Your task to perform on an android device: Clear the cart on ebay.com. Add lenovo thinkpad to the cart on ebay.com, then select checkout. Image 0: 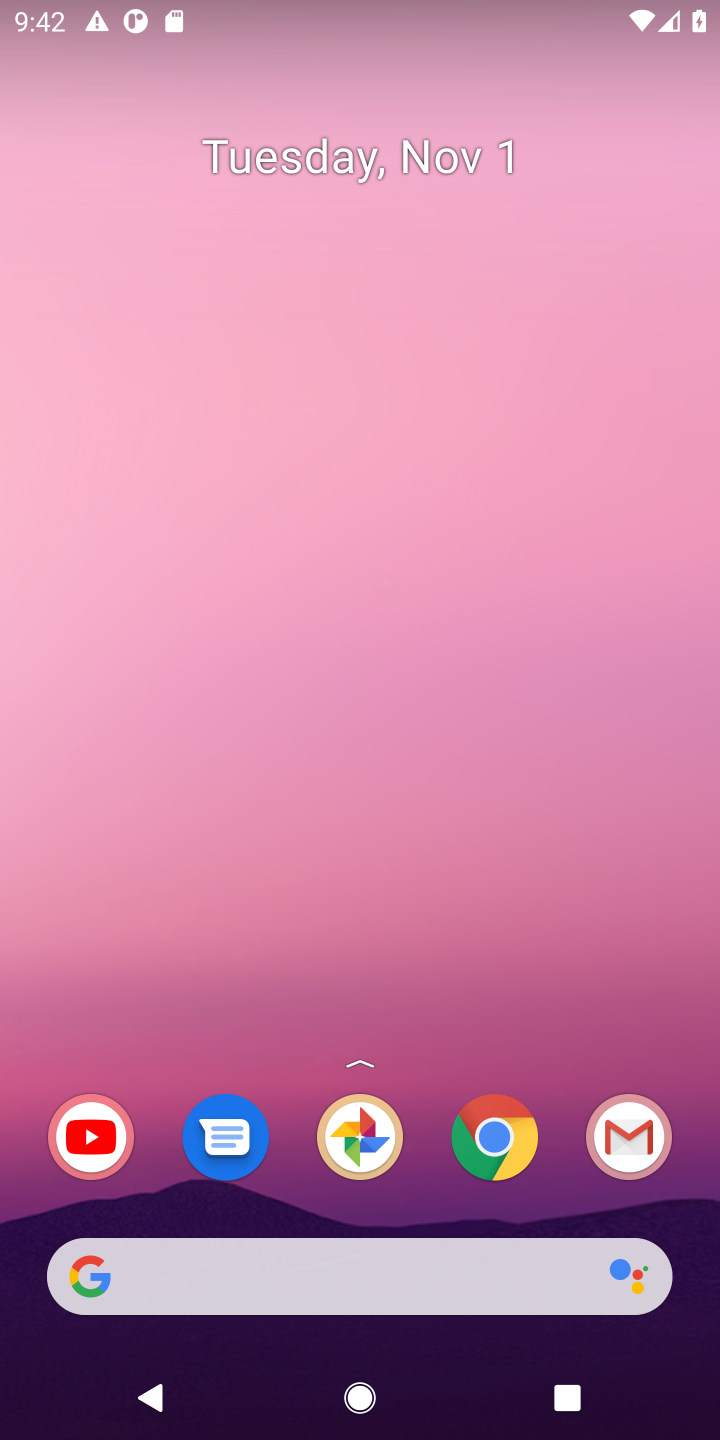
Step 0: click (356, 1261)
Your task to perform on an android device: Clear the cart on ebay.com. Add lenovo thinkpad to the cart on ebay.com, then select checkout. Image 1: 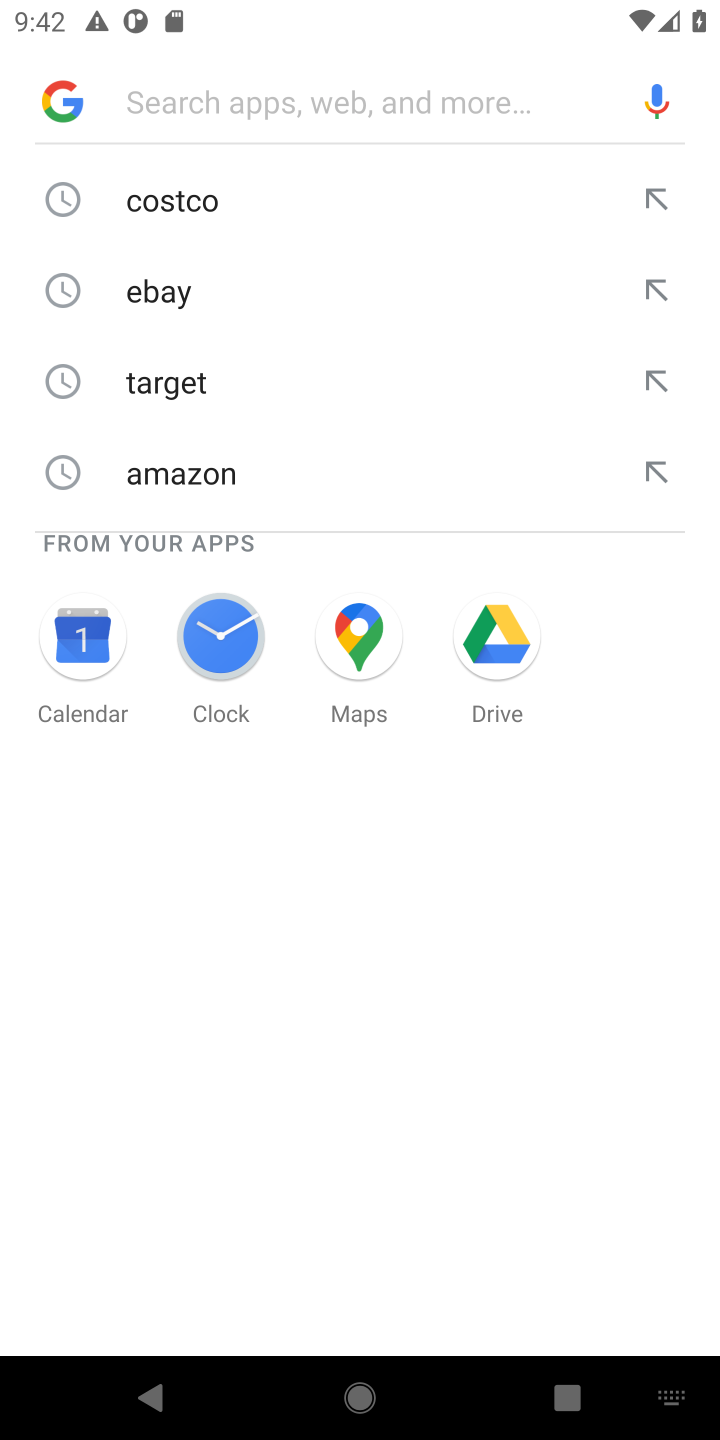
Step 1: click (138, 297)
Your task to perform on an android device: Clear the cart on ebay.com. Add lenovo thinkpad to the cart on ebay.com, then select checkout. Image 2: 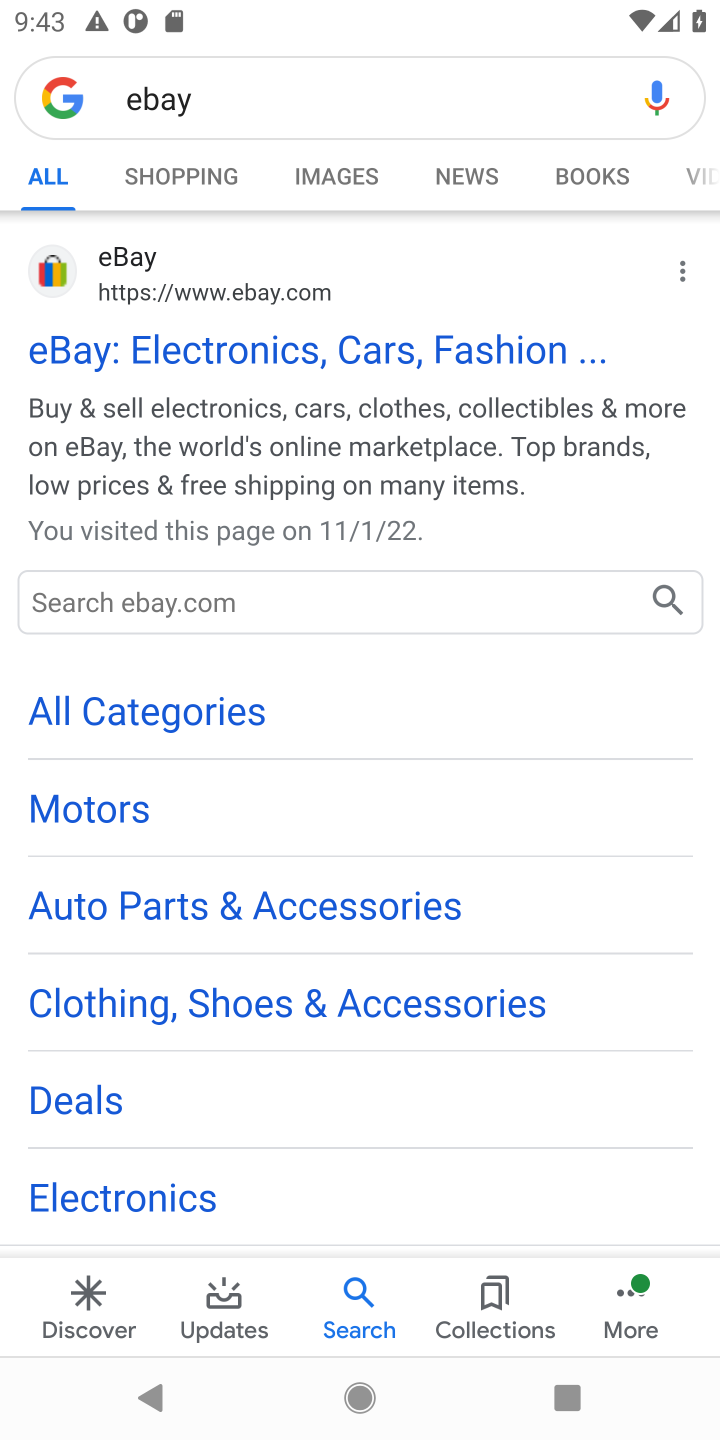
Step 2: click (130, 261)
Your task to perform on an android device: Clear the cart on ebay.com. Add lenovo thinkpad to the cart on ebay.com, then select checkout. Image 3: 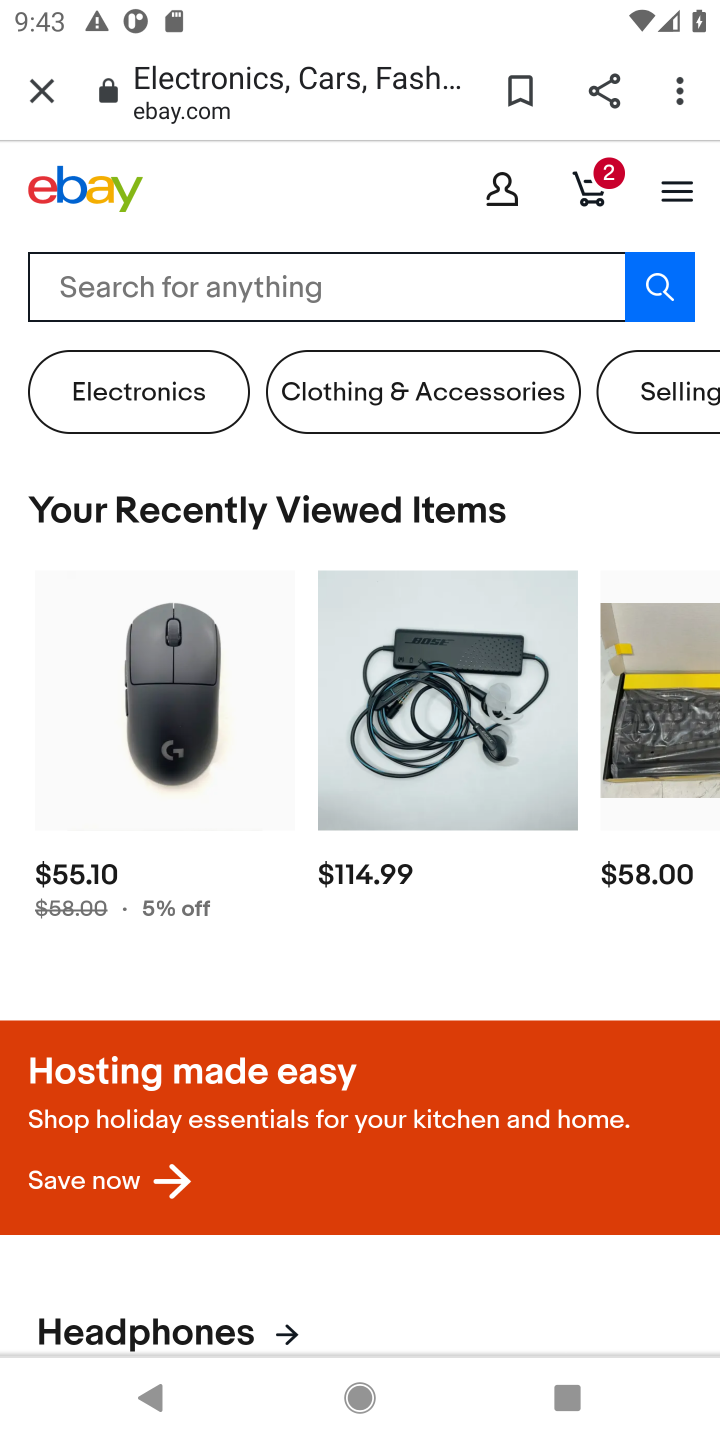
Step 3: click (138, 281)
Your task to perform on an android device: Clear the cart on ebay.com. Add lenovo thinkpad to the cart on ebay.com, then select checkout. Image 4: 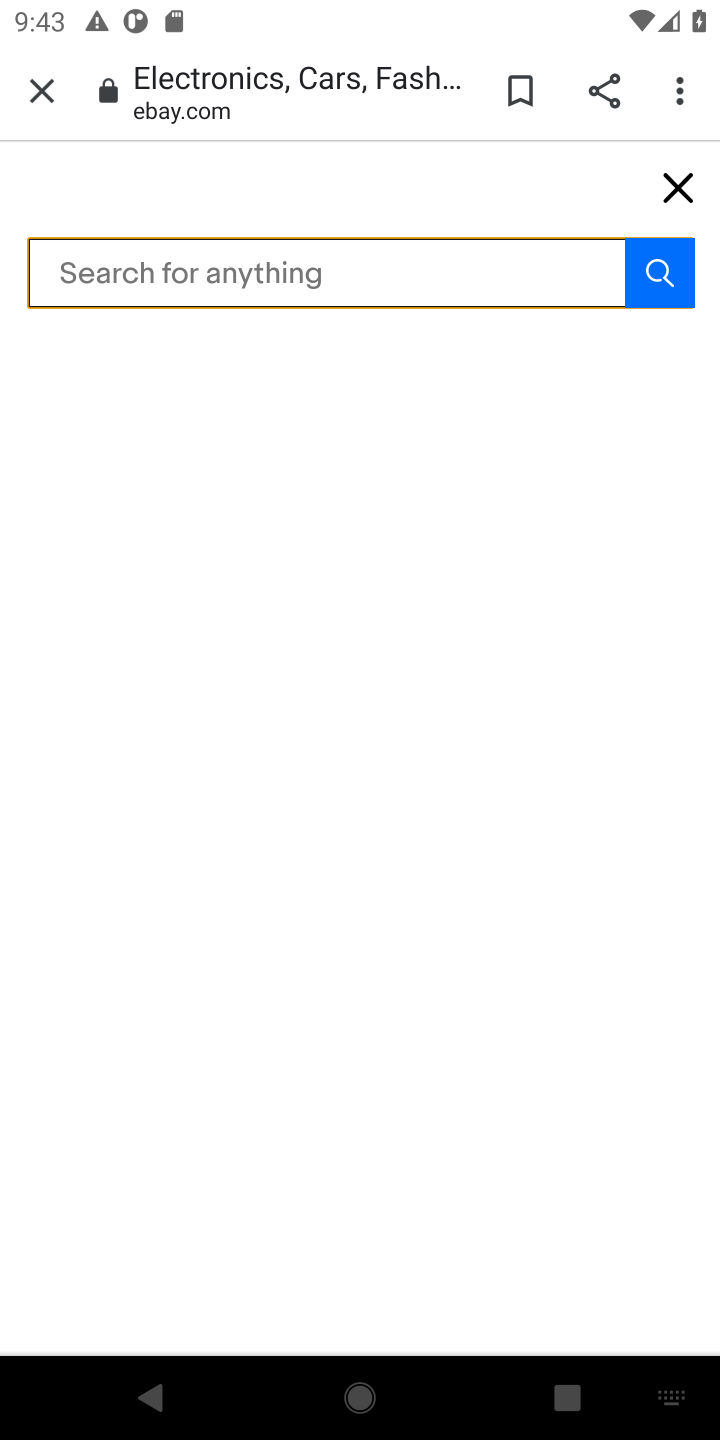
Step 4: click (31, 91)
Your task to perform on an android device: Clear the cart on ebay.com. Add lenovo thinkpad to the cart on ebay.com, then select checkout. Image 5: 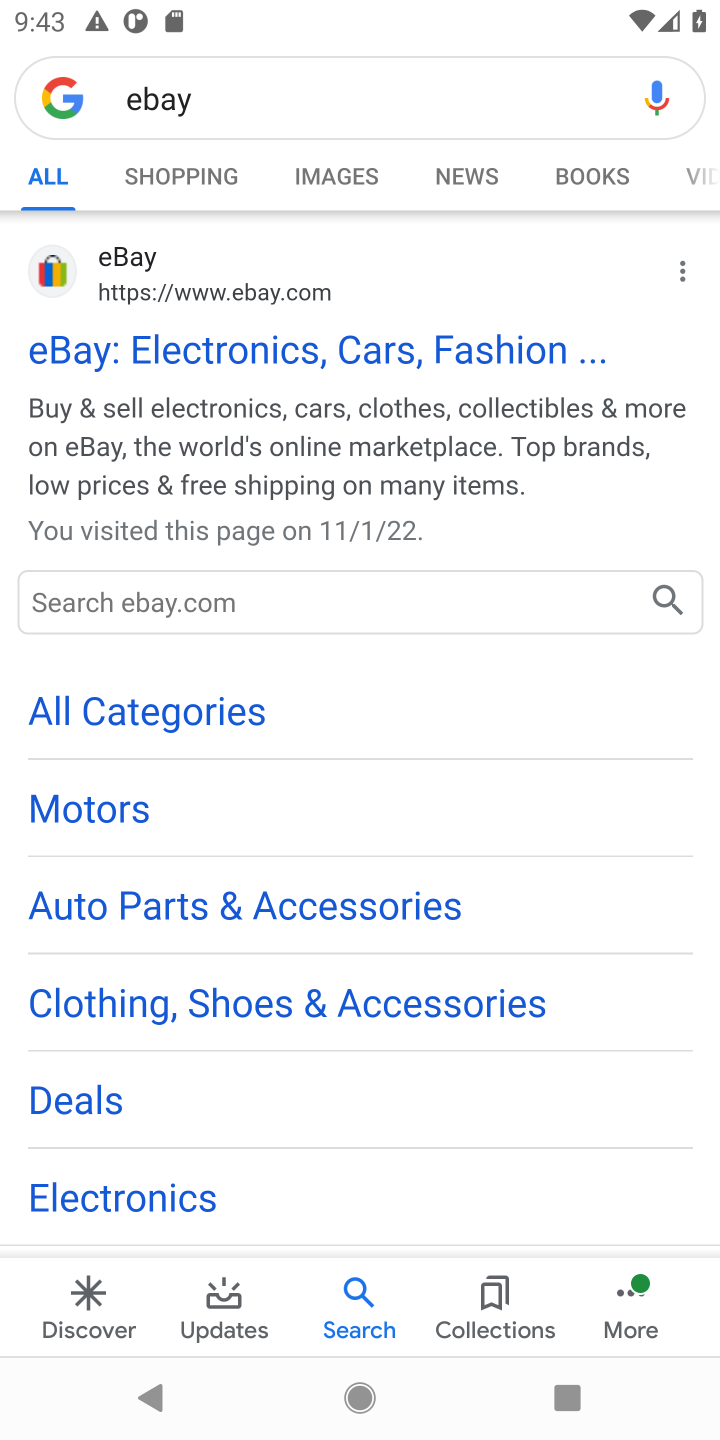
Step 5: click (205, 280)
Your task to perform on an android device: Clear the cart on ebay.com. Add lenovo thinkpad to the cart on ebay.com, then select checkout. Image 6: 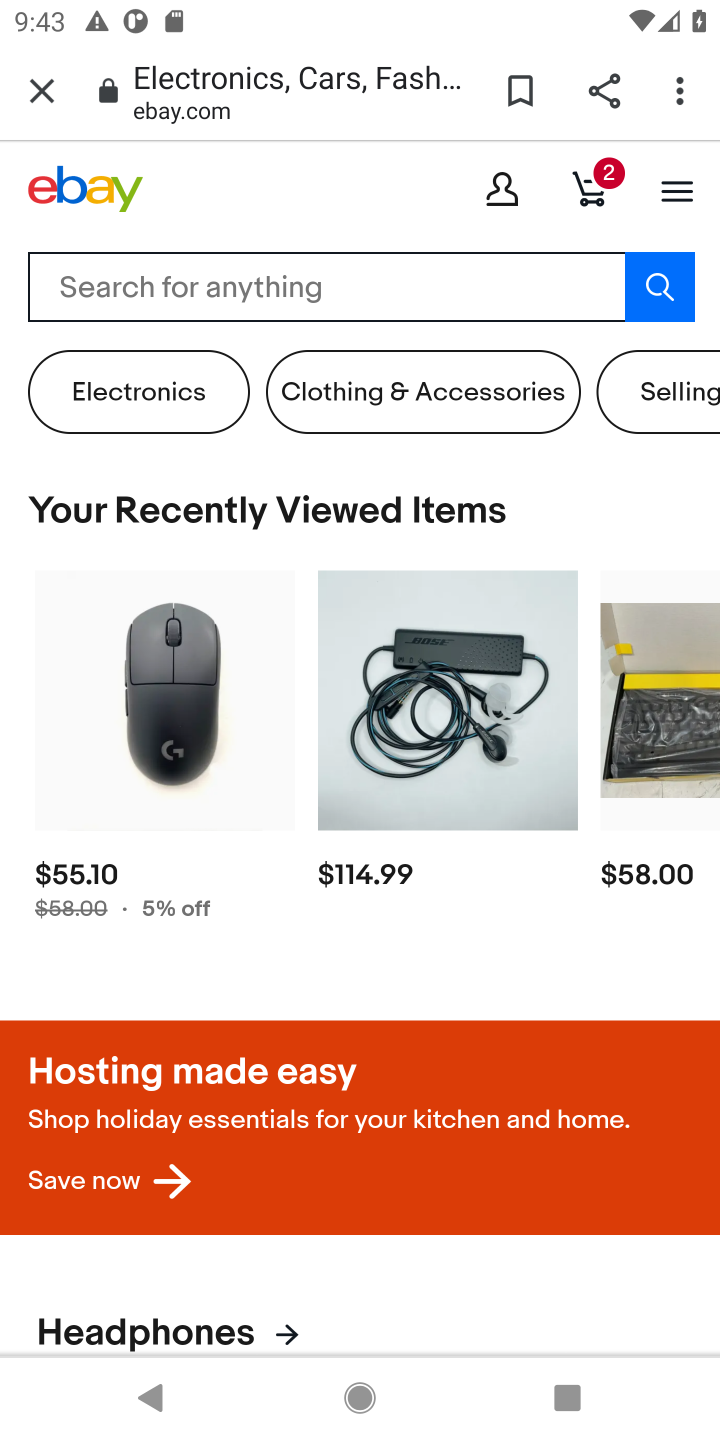
Step 6: click (599, 190)
Your task to perform on an android device: Clear the cart on ebay.com. Add lenovo thinkpad to the cart on ebay.com, then select checkout. Image 7: 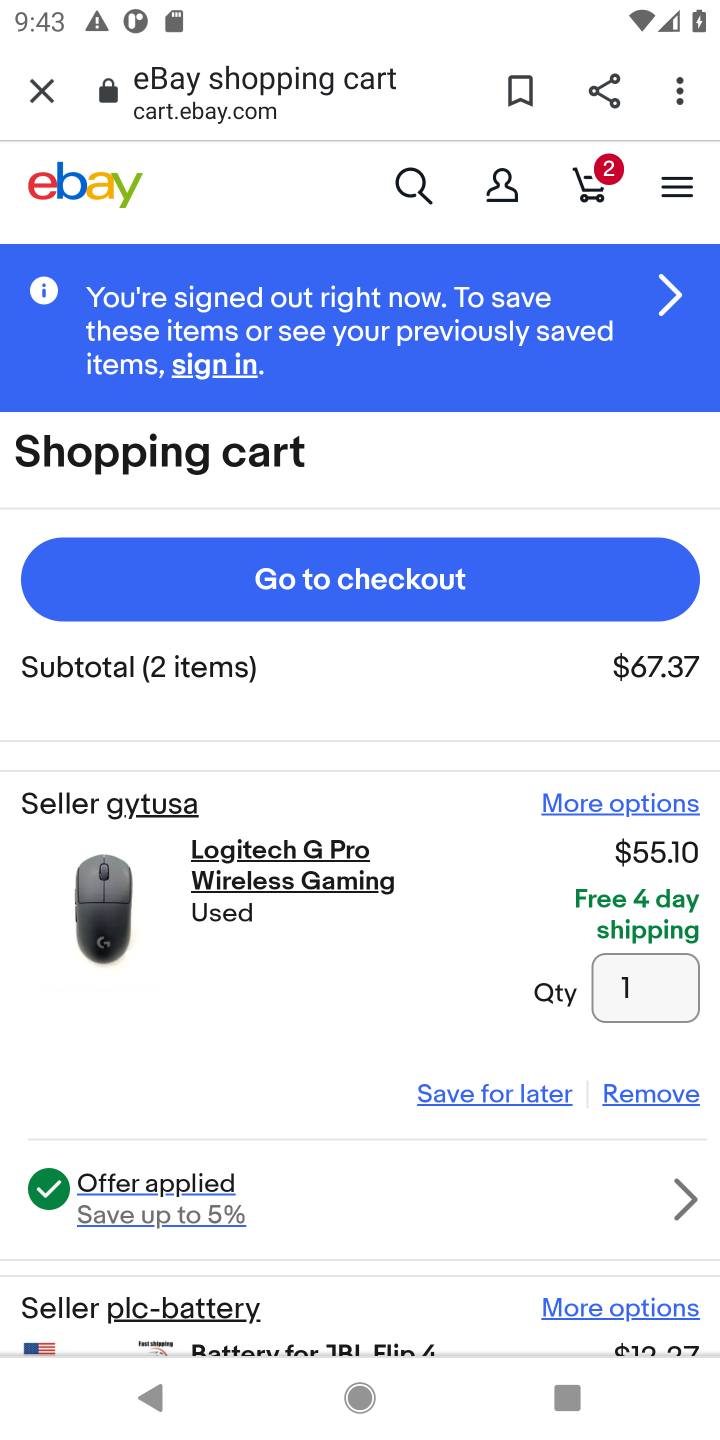
Step 7: click (651, 1089)
Your task to perform on an android device: Clear the cart on ebay.com. Add lenovo thinkpad to the cart on ebay.com, then select checkout. Image 8: 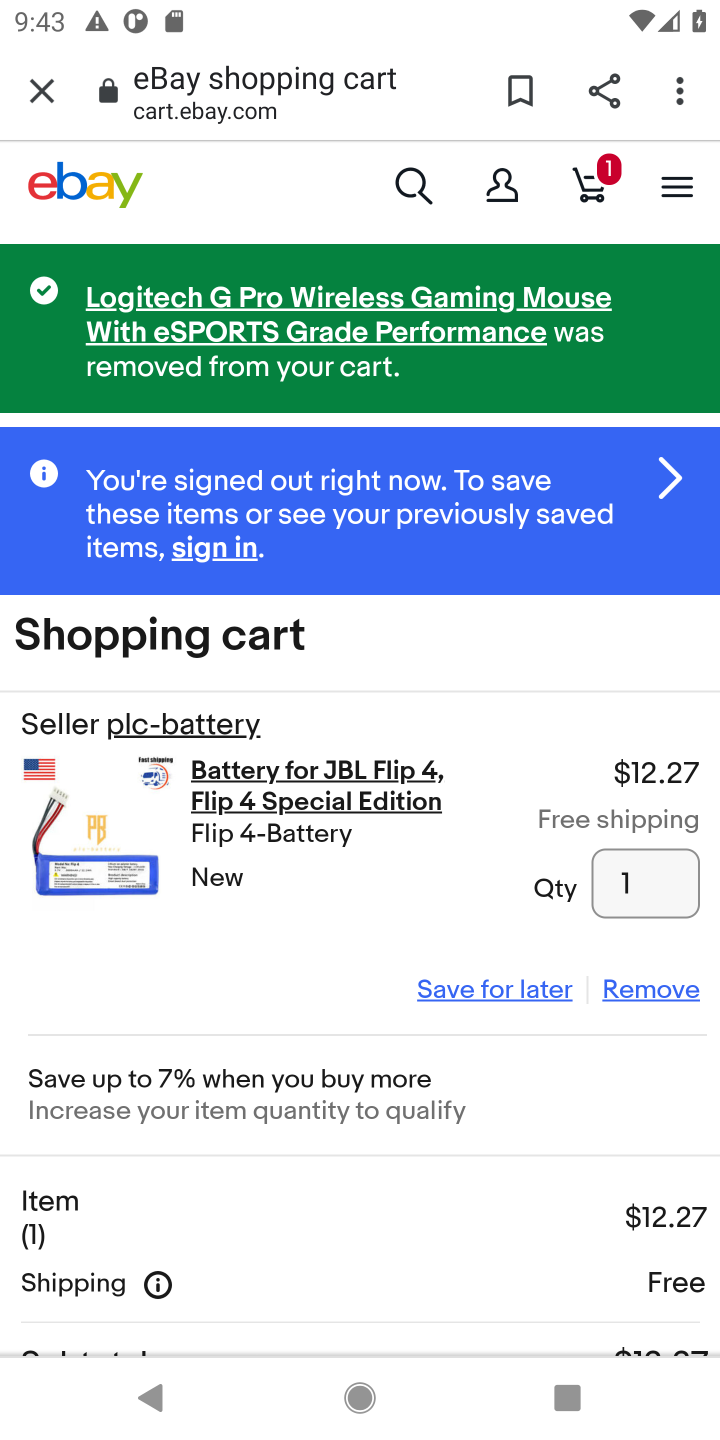
Step 8: click (651, 992)
Your task to perform on an android device: Clear the cart on ebay.com. Add lenovo thinkpad to the cart on ebay.com, then select checkout. Image 9: 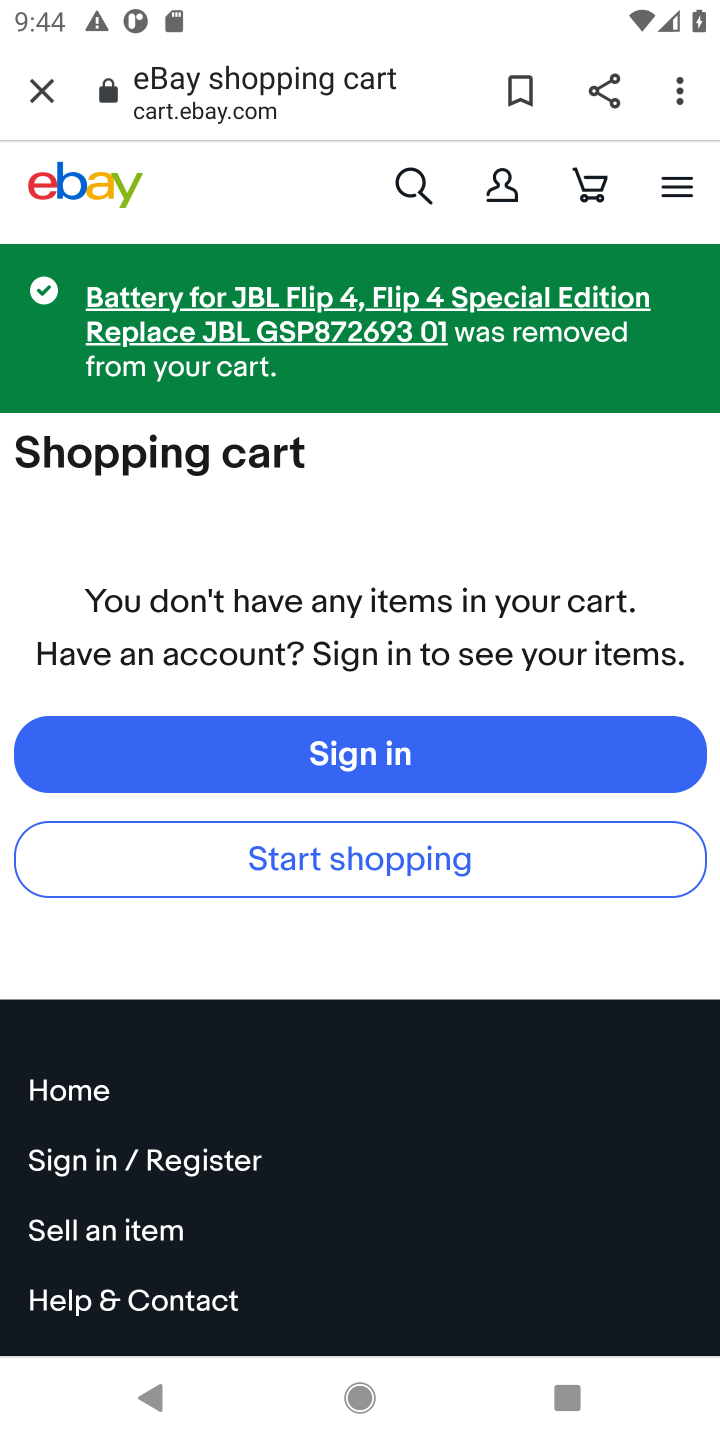
Step 9: click (396, 192)
Your task to perform on an android device: Clear the cart on ebay.com. Add lenovo thinkpad to the cart on ebay.com, then select checkout. Image 10: 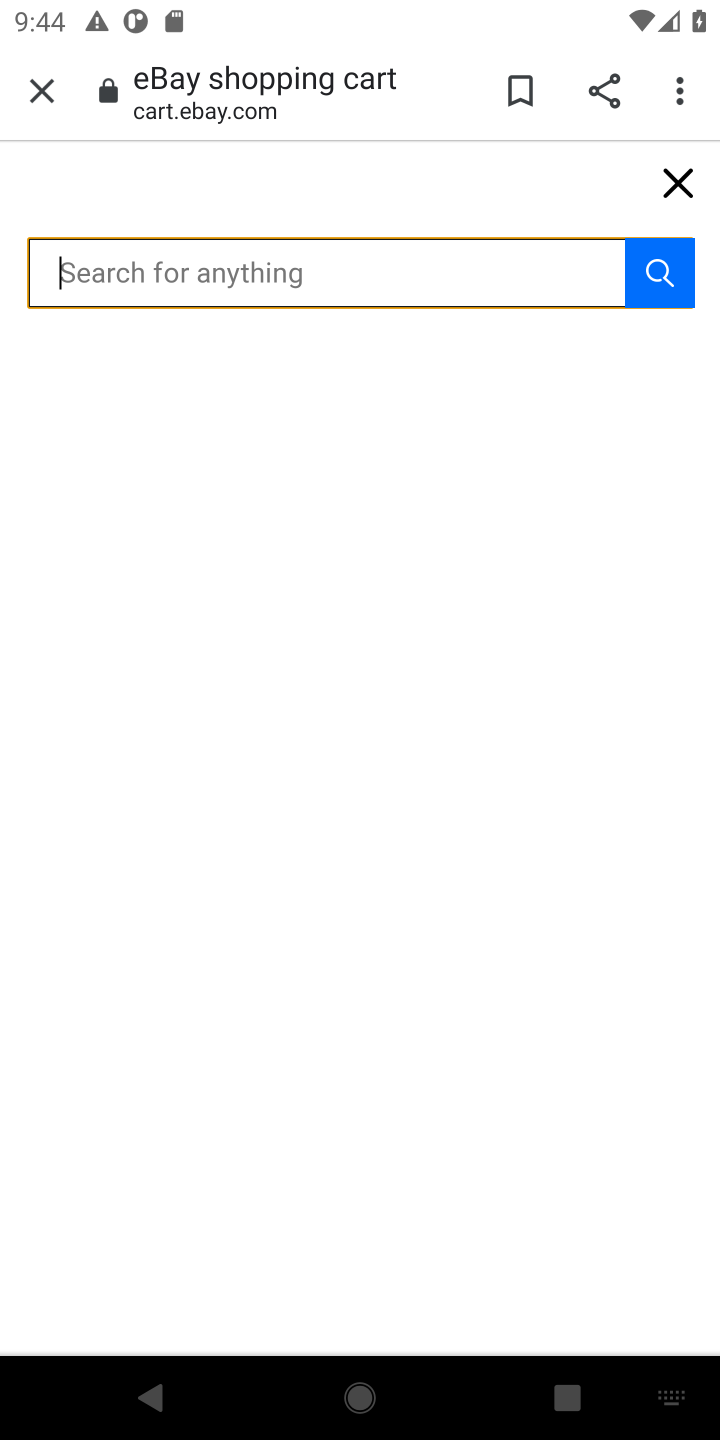
Step 10: type " lenovo thinkpad "
Your task to perform on an android device: Clear the cart on ebay.com. Add lenovo thinkpad to the cart on ebay.com, then select checkout. Image 11: 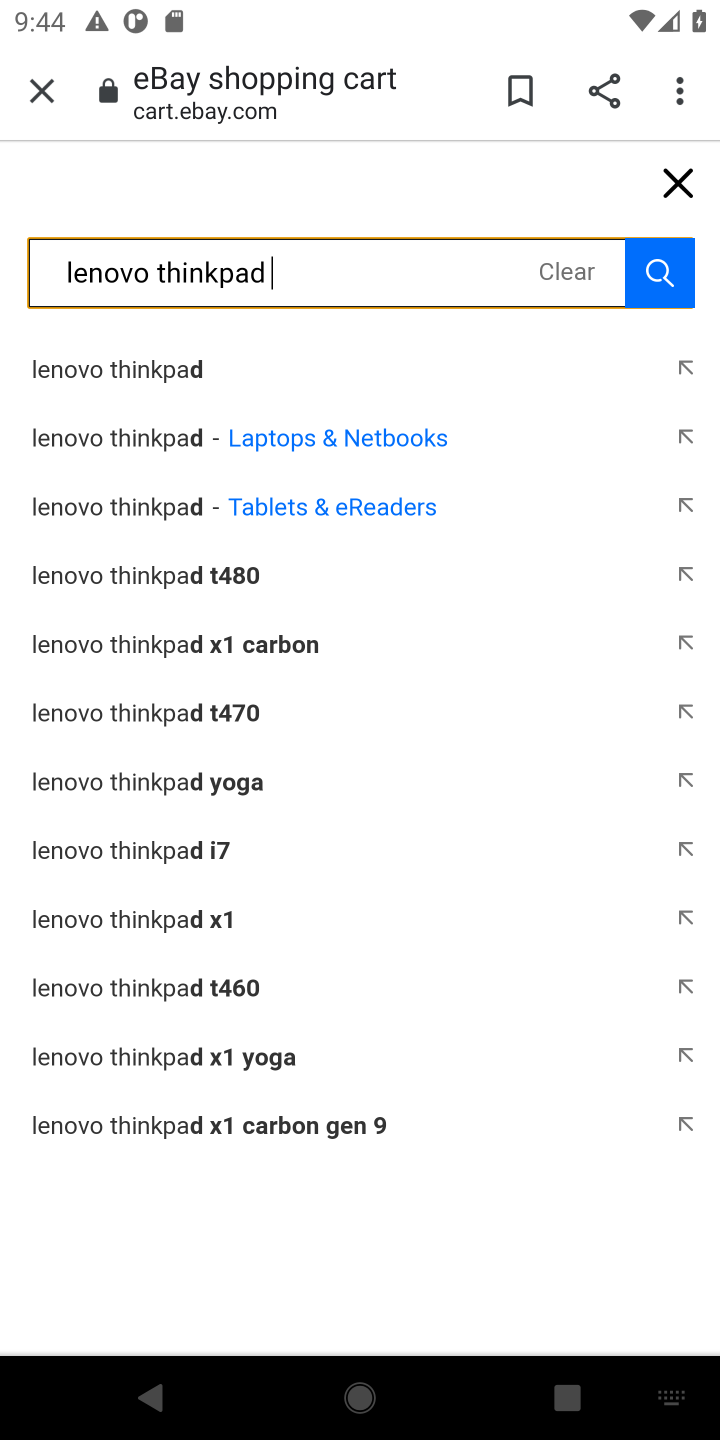
Step 11: click (136, 364)
Your task to perform on an android device: Clear the cart on ebay.com. Add lenovo thinkpad to the cart on ebay.com, then select checkout. Image 12: 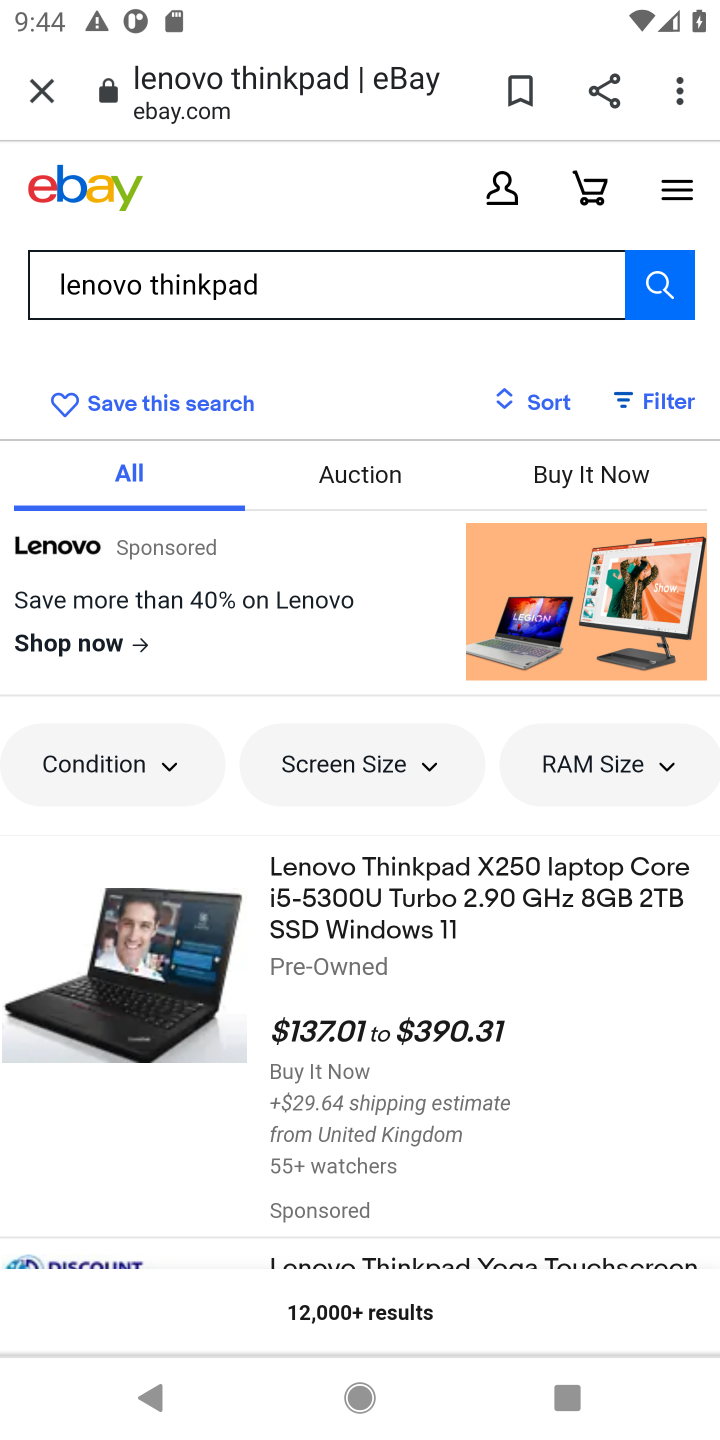
Step 12: click (353, 918)
Your task to perform on an android device: Clear the cart on ebay.com. Add lenovo thinkpad to the cart on ebay.com, then select checkout. Image 13: 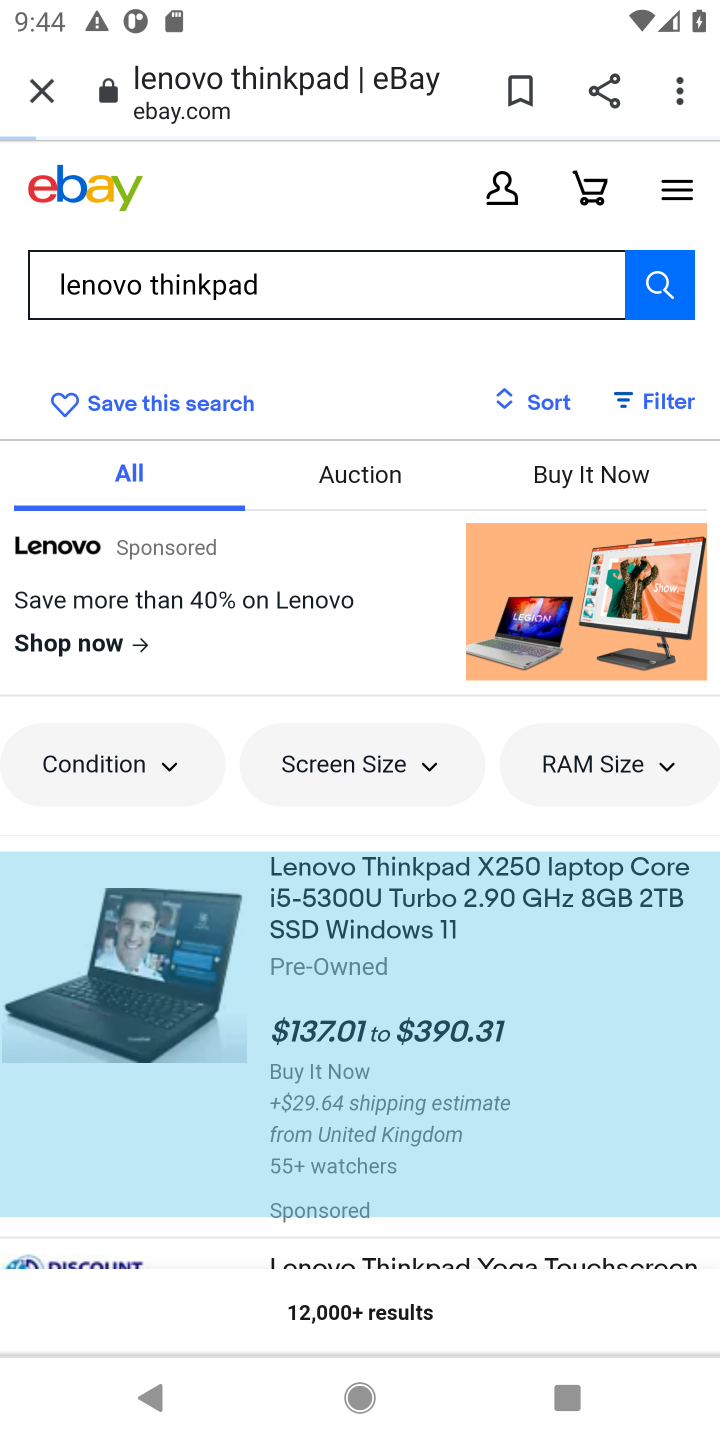
Step 13: click (353, 918)
Your task to perform on an android device: Clear the cart on ebay.com. Add lenovo thinkpad to the cart on ebay.com, then select checkout. Image 14: 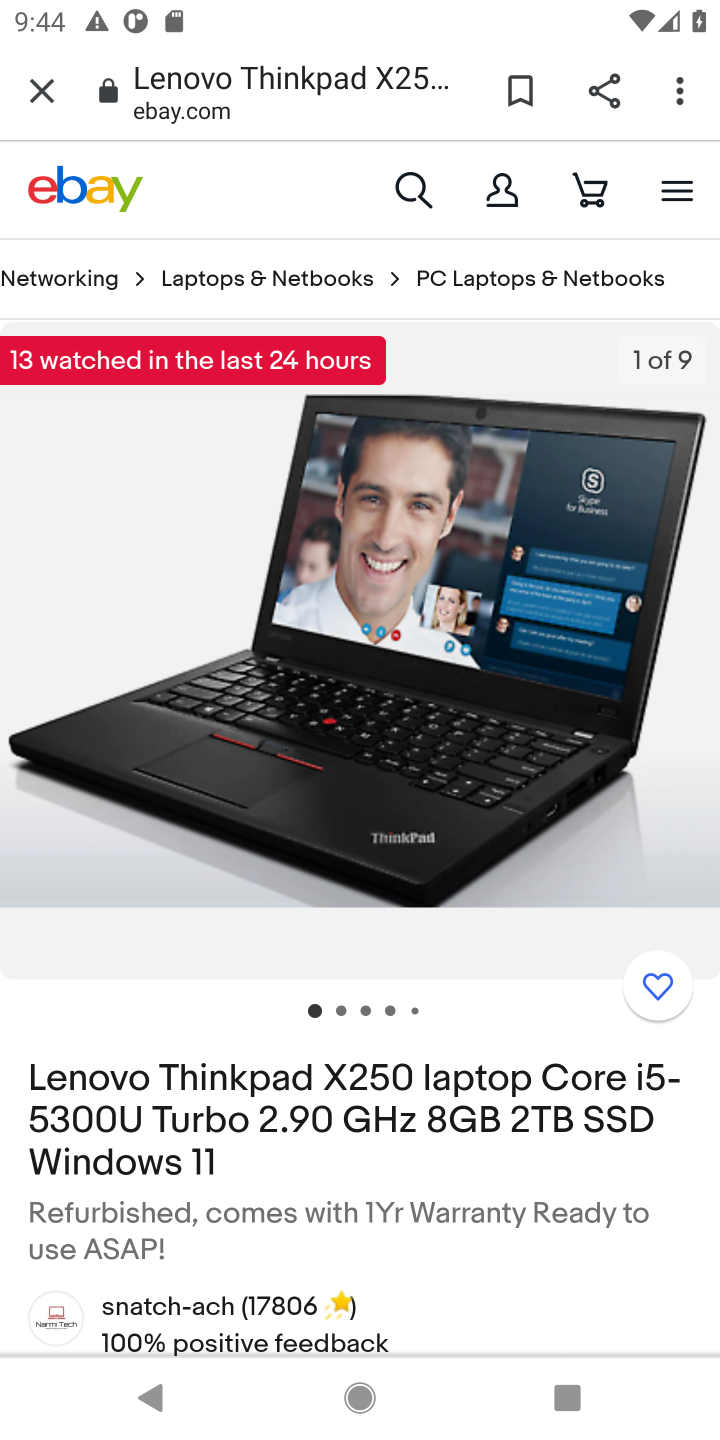
Step 14: drag from (425, 981) to (450, 62)
Your task to perform on an android device: Clear the cart on ebay.com. Add lenovo thinkpad to the cart on ebay.com, then select checkout. Image 15: 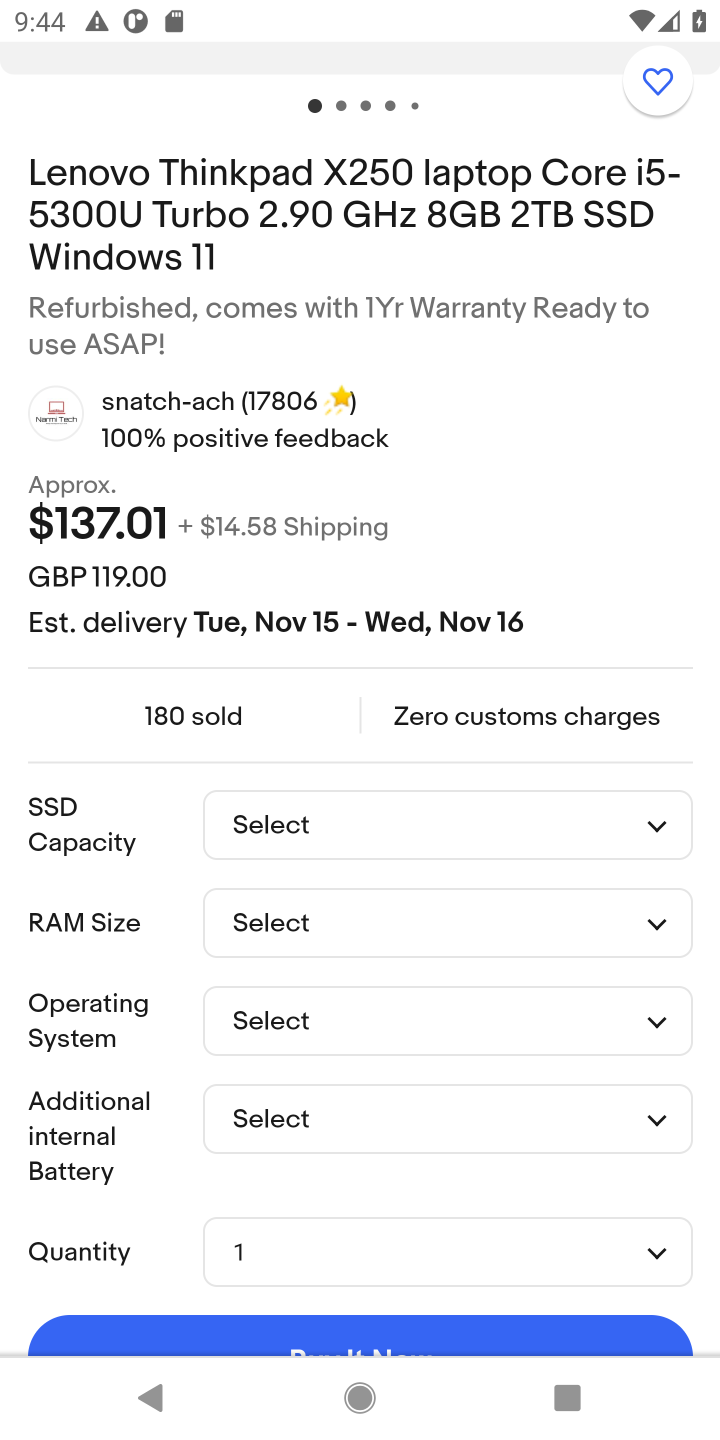
Step 15: drag from (325, 807) to (370, 518)
Your task to perform on an android device: Clear the cart on ebay.com. Add lenovo thinkpad to the cart on ebay.com, then select checkout. Image 16: 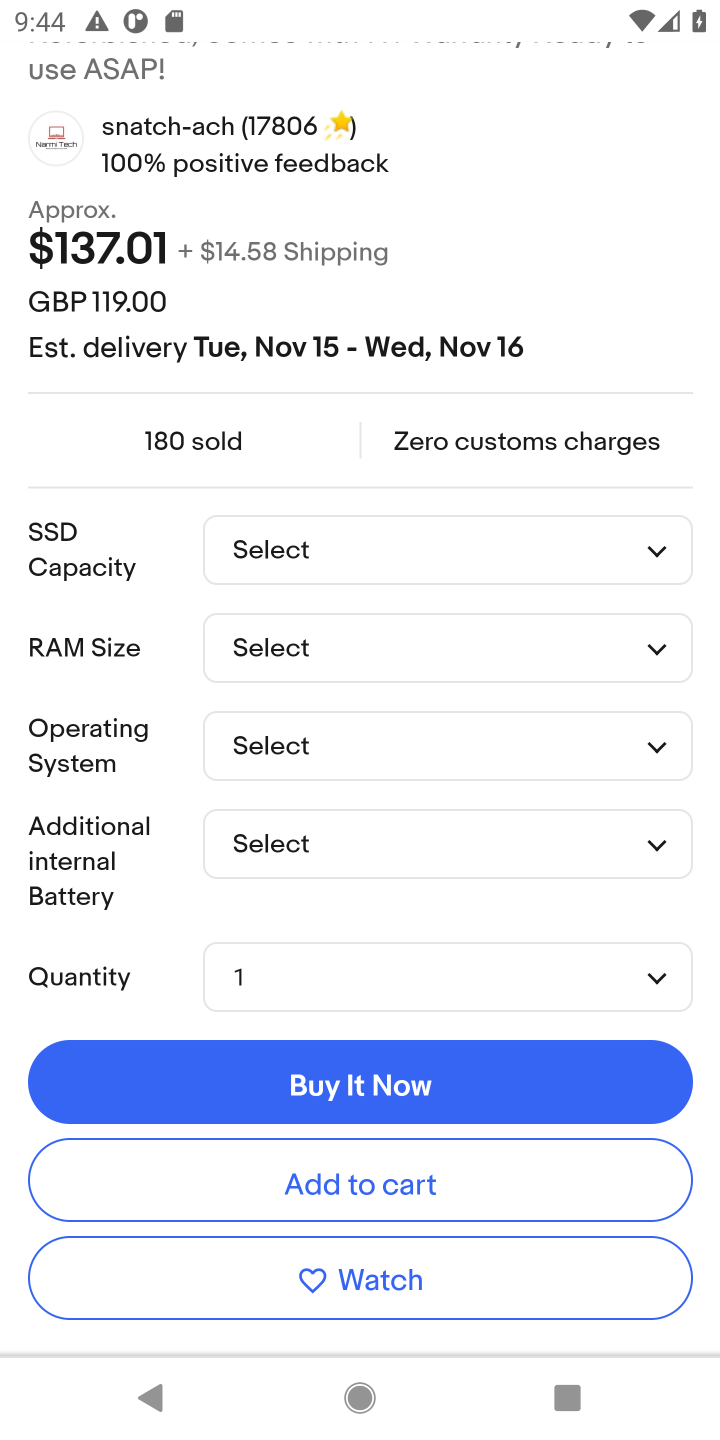
Step 16: click (401, 1173)
Your task to perform on an android device: Clear the cart on ebay.com. Add lenovo thinkpad to the cart on ebay.com, then select checkout. Image 17: 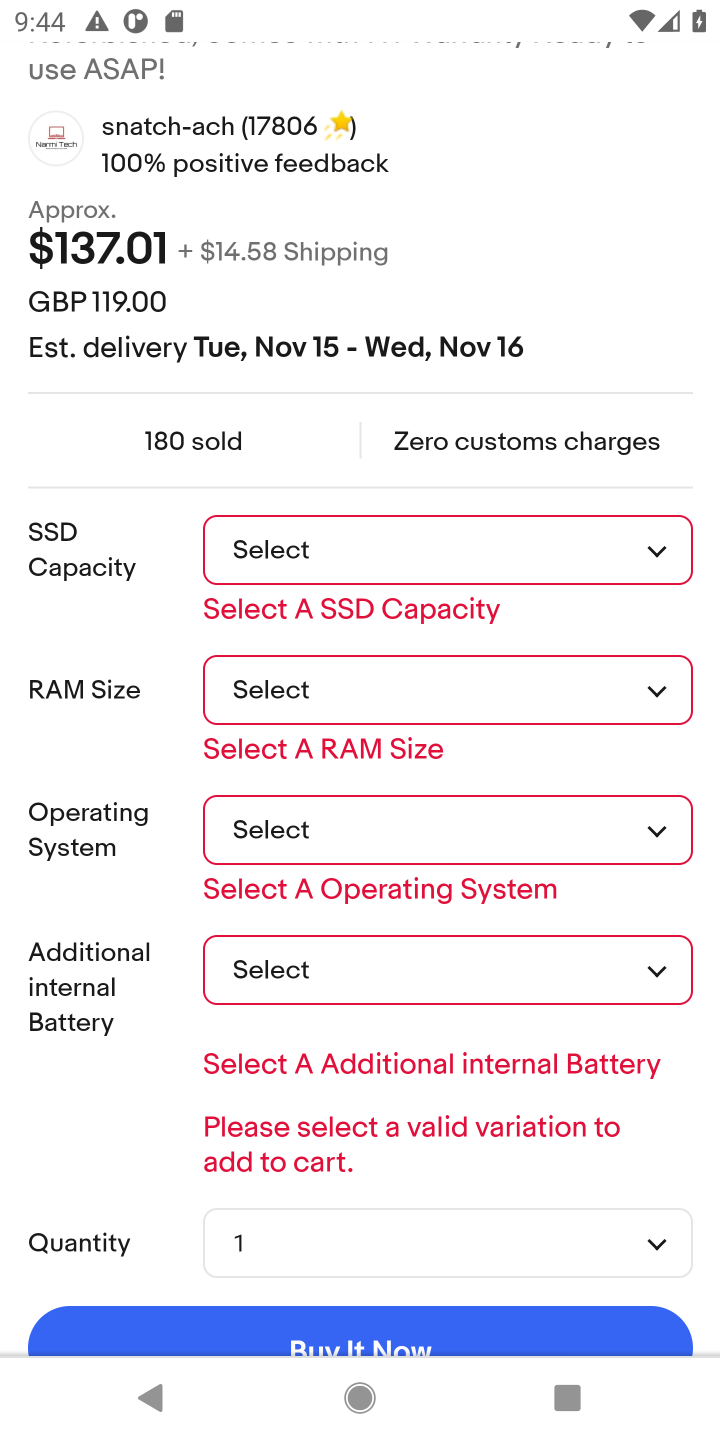
Step 17: click (650, 539)
Your task to perform on an android device: Clear the cart on ebay.com. Add lenovo thinkpad to the cart on ebay.com, then select checkout. Image 18: 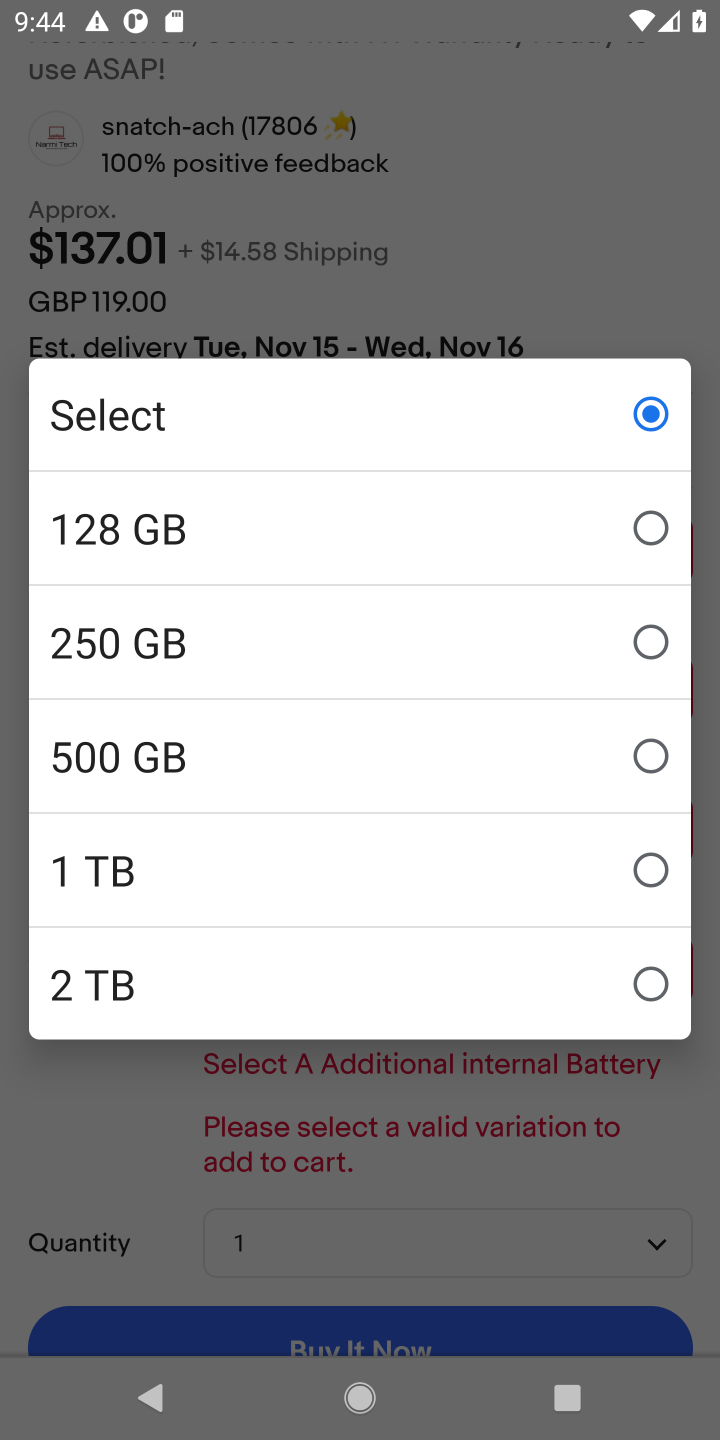
Step 18: click (331, 566)
Your task to perform on an android device: Clear the cart on ebay.com. Add lenovo thinkpad to the cart on ebay.com, then select checkout. Image 19: 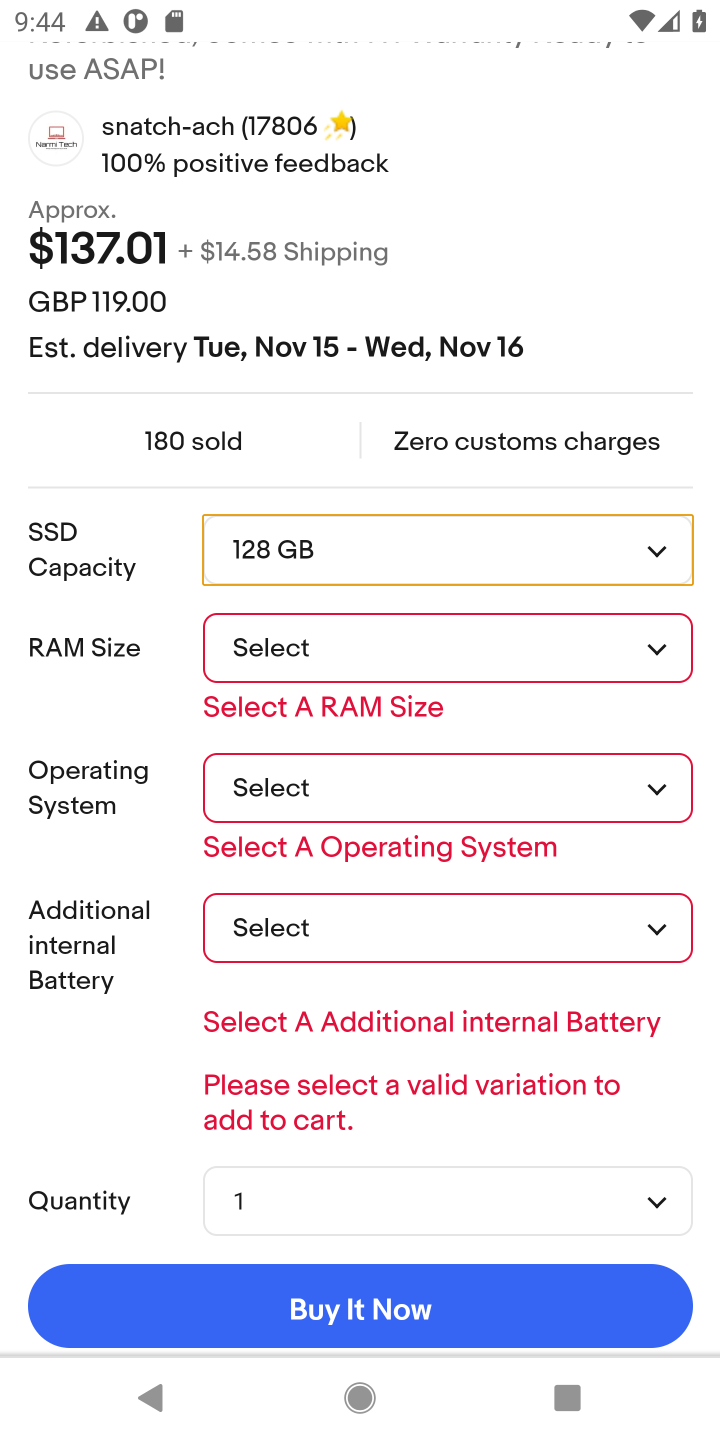
Step 19: click (566, 656)
Your task to perform on an android device: Clear the cart on ebay.com. Add lenovo thinkpad to the cart on ebay.com, then select checkout. Image 20: 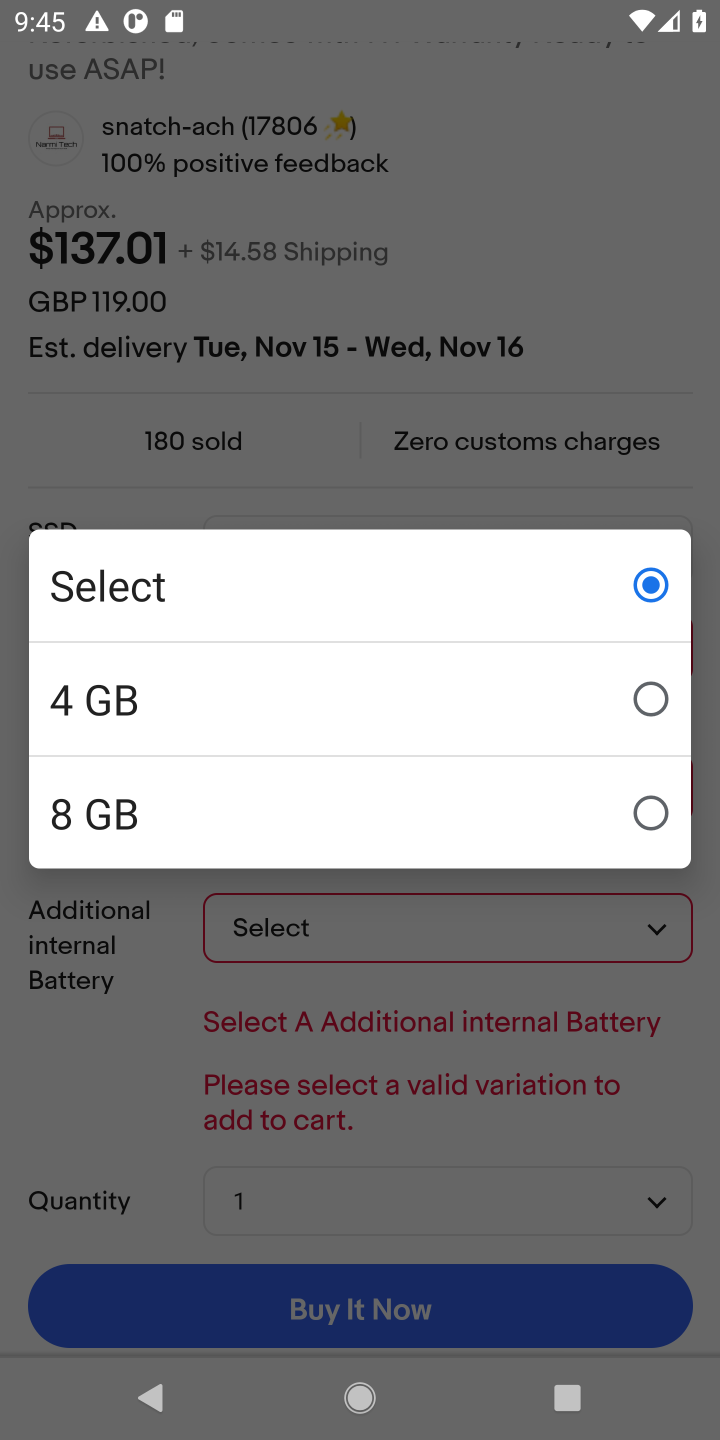
Step 20: click (652, 699)
Your task to perform on an android device: Clear the cart on ebay.com. Add lenovo thinkpad to the cart on ebay.com, then select checkout. Image 21: 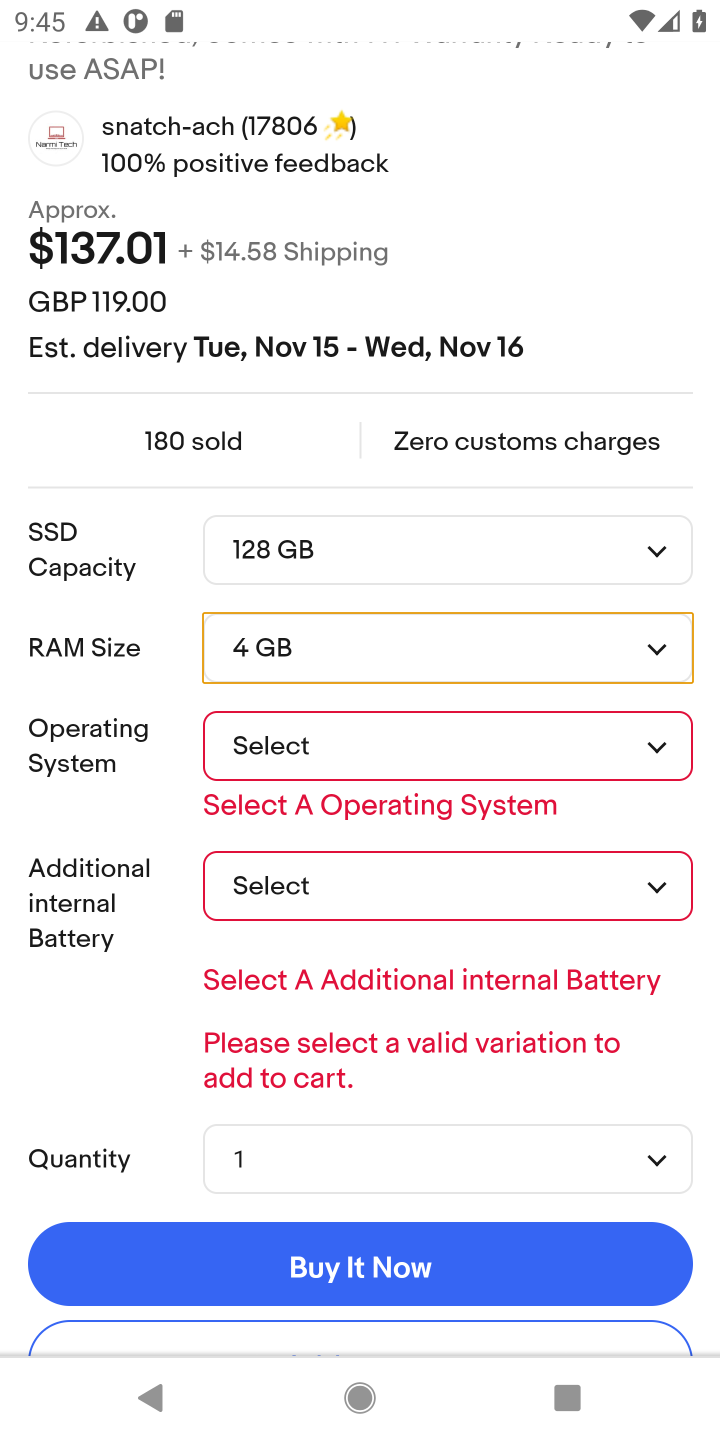
Step 21: click (617, 735)
Your task to perform on an android device: Clear the cart on ebay.com. Add lenovo thinkpad to the cart on ebay.com, then select checkout. Image 22: 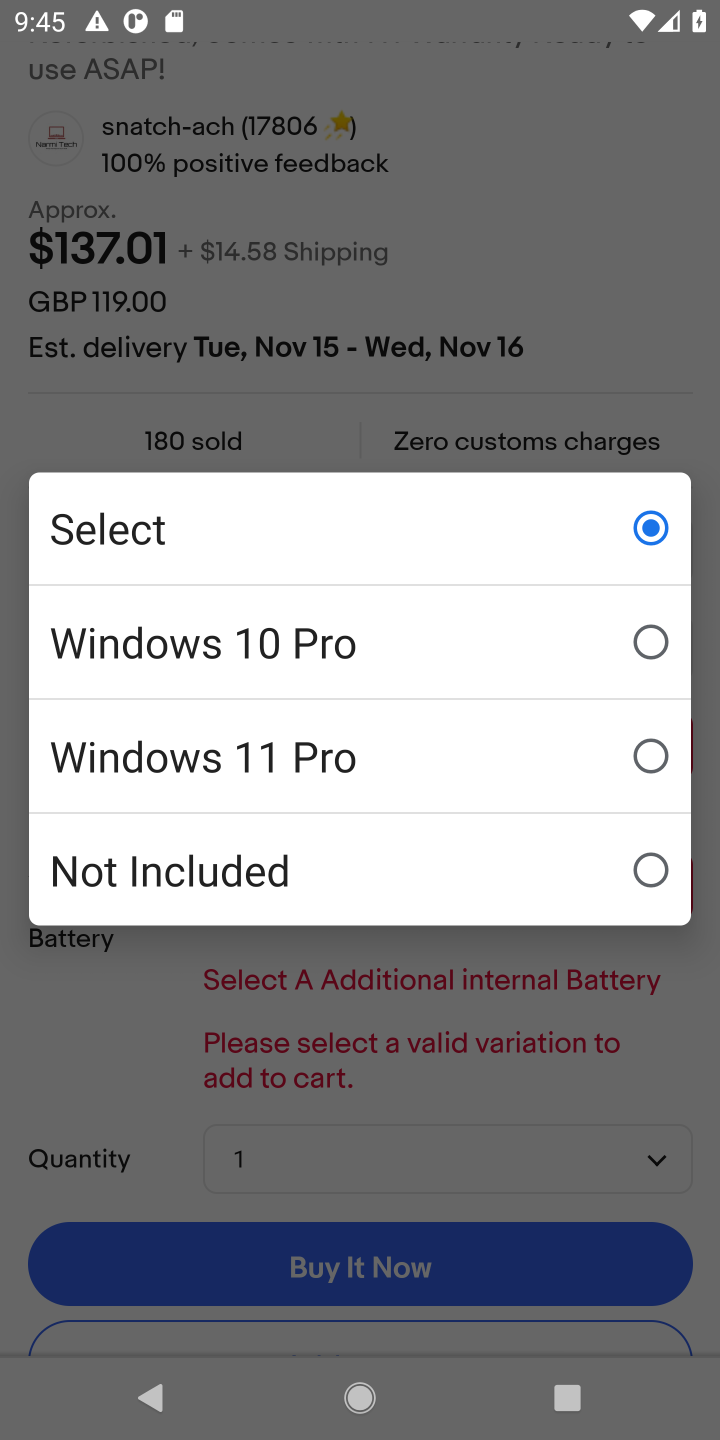
Step 22: click (645, 761)
Your task to perform on an android device: Clear the cart on ebay.com. Add lenovo thinkpad to the cart on ebay.com, then select checkout. Image 23: 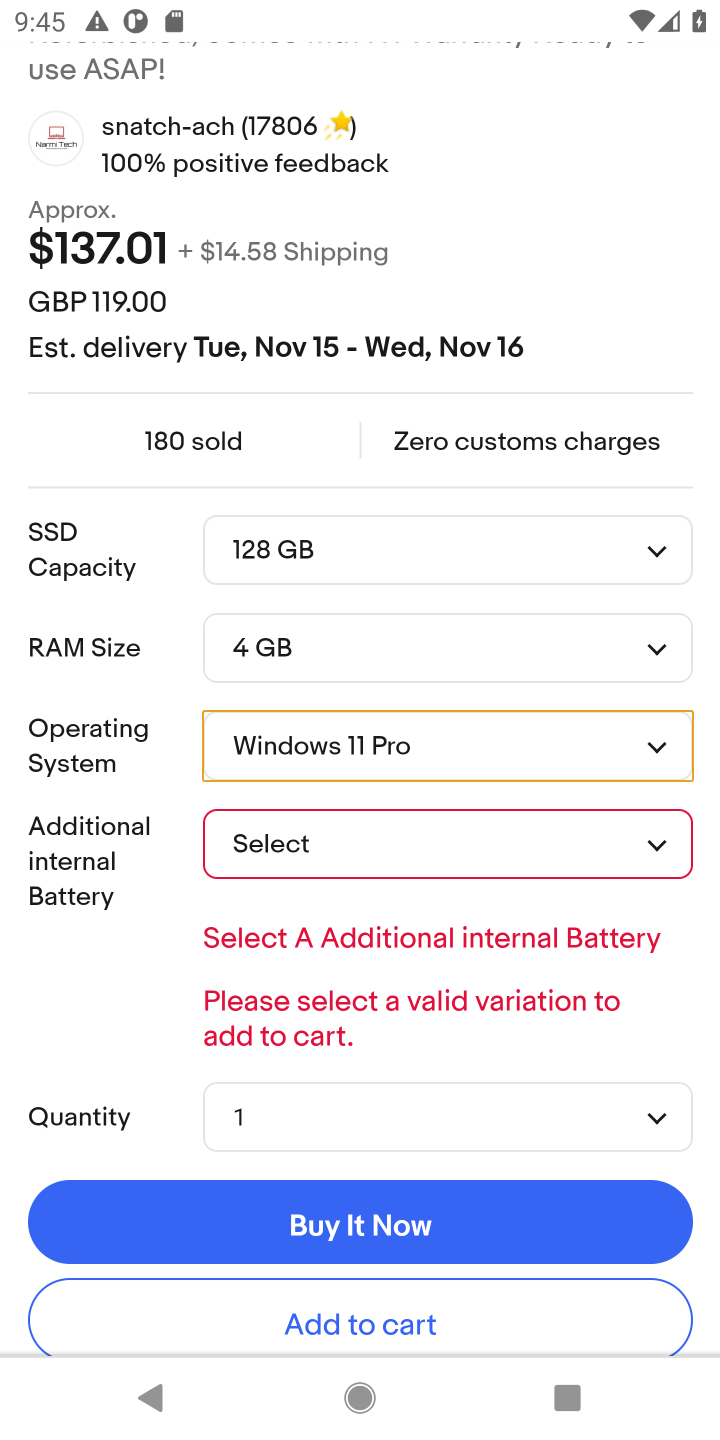
Step 23: click (669, 852)
Your task to perform on an android device: Clear the cart on ebay.com. Add lenovo thinkpad to the cart on ebay.com, then select checkout. Image 24: 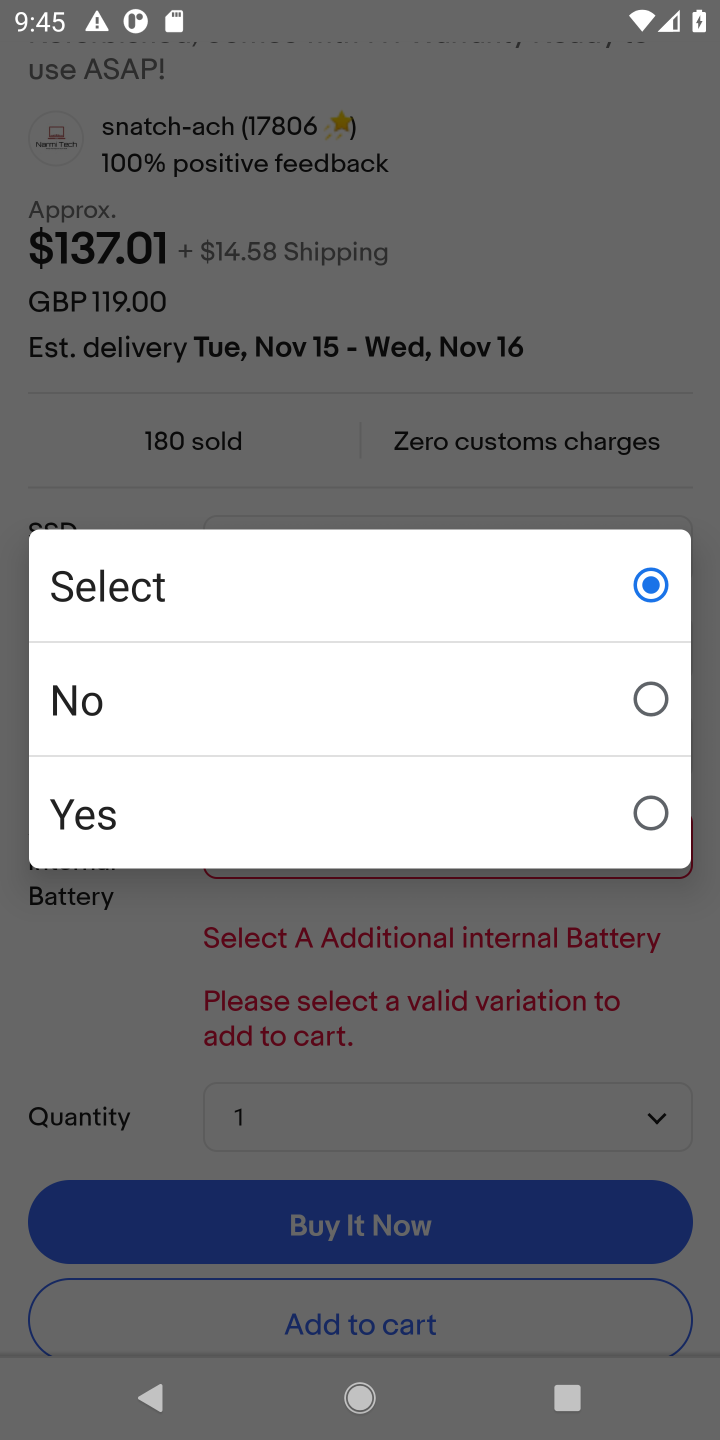
Step 24: click (378, 841)
Your task to perform on an android device: Clear the cart on ebay.com. Add lenovo thinkpad to the cart on ebay.com, then select checkout. Image 25: 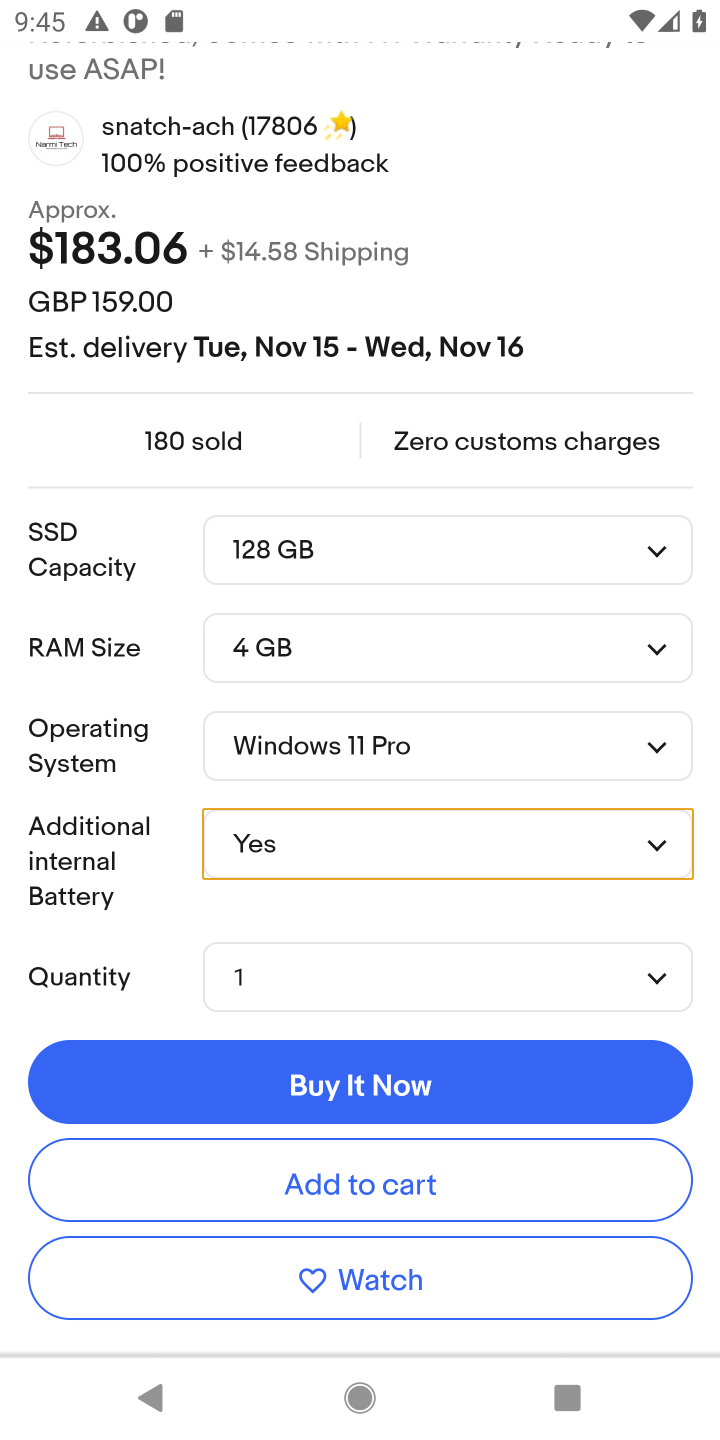
Step 25: click (306, 1209)
Your task to perform on an android device: Clear the cart on ebay.com. Add lenovo thinkpad to the cart on ebay.com, then select checkout. Image 26: 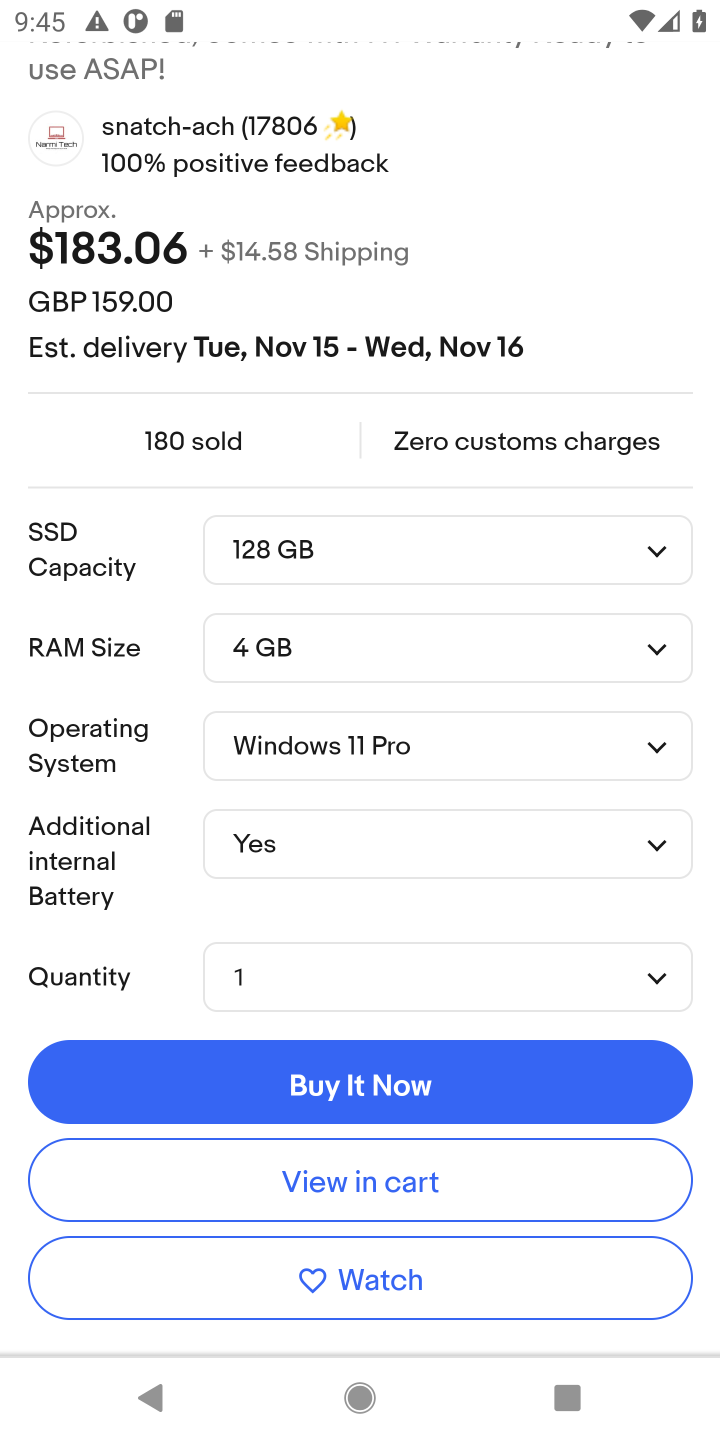
Step 26: click (392, 1172)
Your task to perform on an android device: Clear the cart on ebay.com. Add lenovo thinkpad to the cart on ebay.com, then select checkout. Image 27: 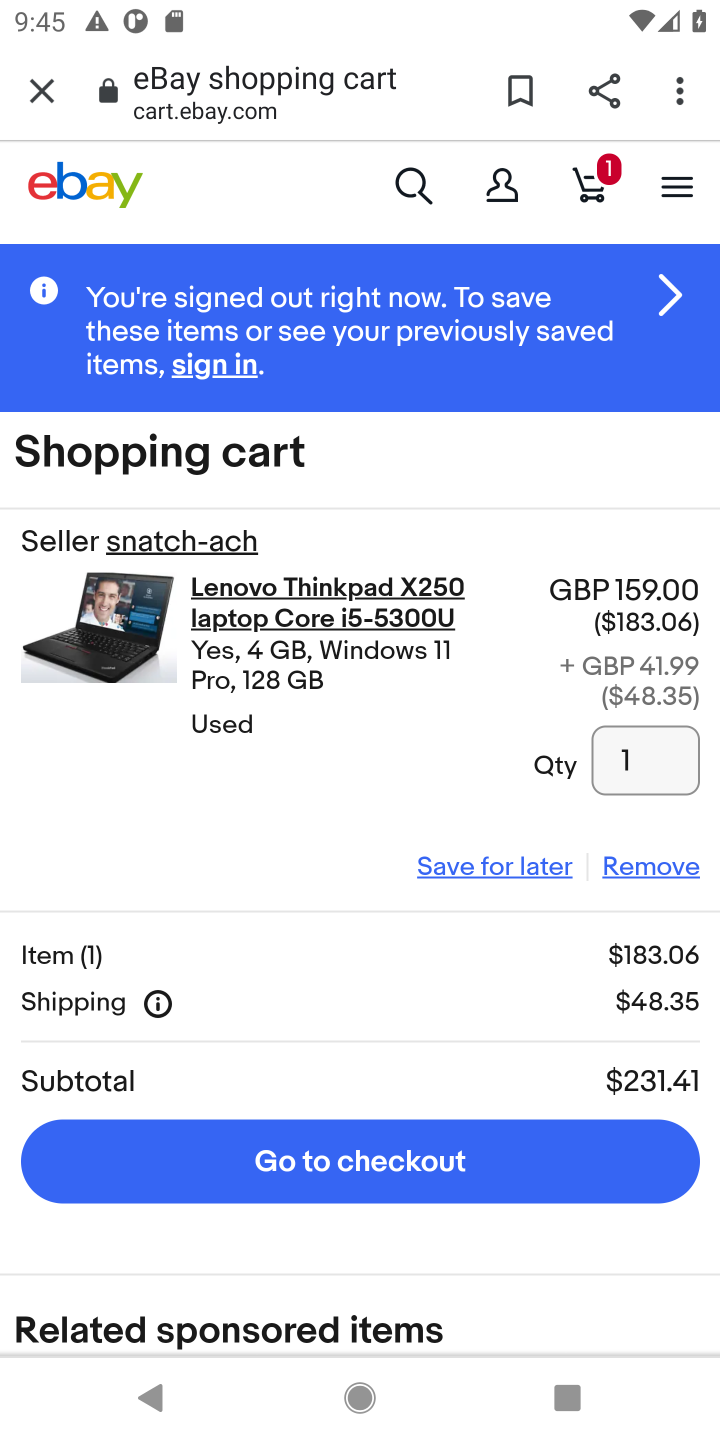
Step 27: click (353, 1145)
Your task to perform on an android device: Clear the cart on ebay.com. Add lenovo thinkpad to the cart on ebay.com, then select checkout. Image 28: 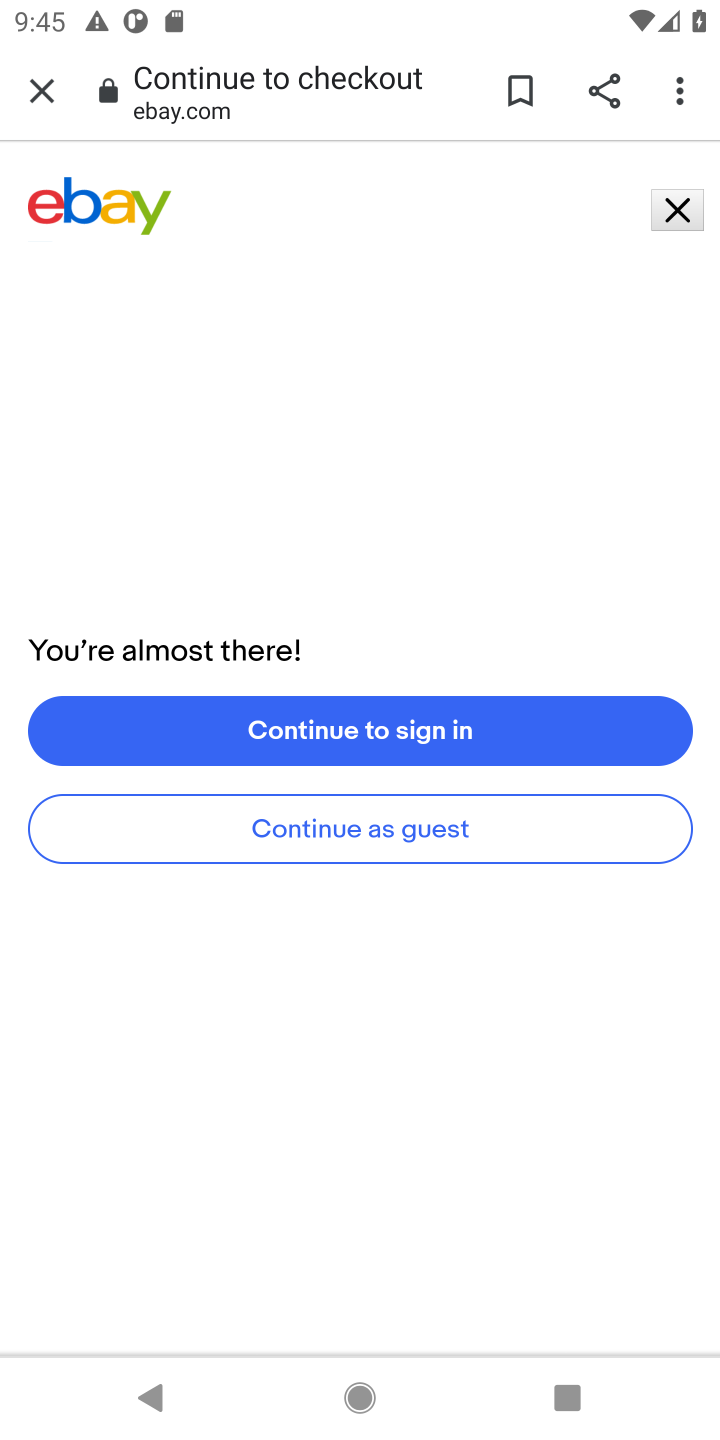
Step 28: task complete